Your task to perform on an android device: turn off picture-in-picture Image 0: 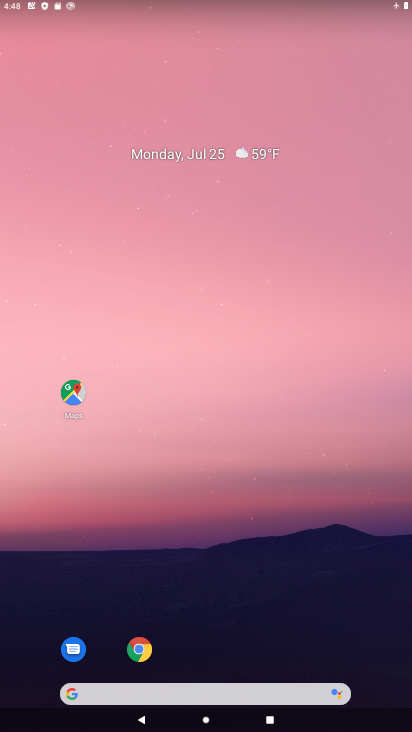
Step 0: drag from (277, 465) to (340, 0)
Your task to perform on an android device: turn off picture-in-picture Image 1: 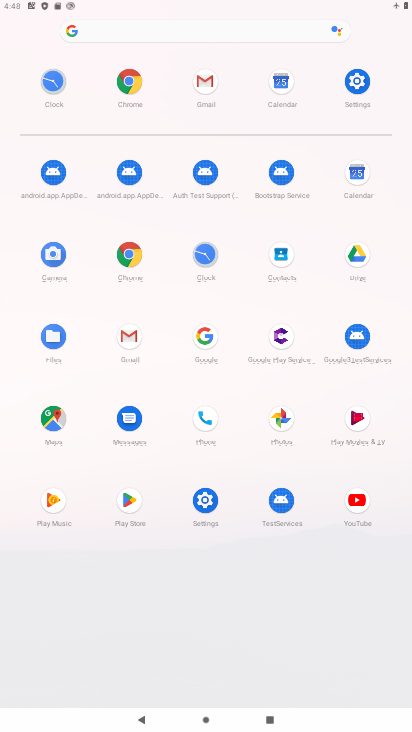
Step 1: click (133, 87)
Your task to perform on an android device: turn off picture-in-picture Image 2: 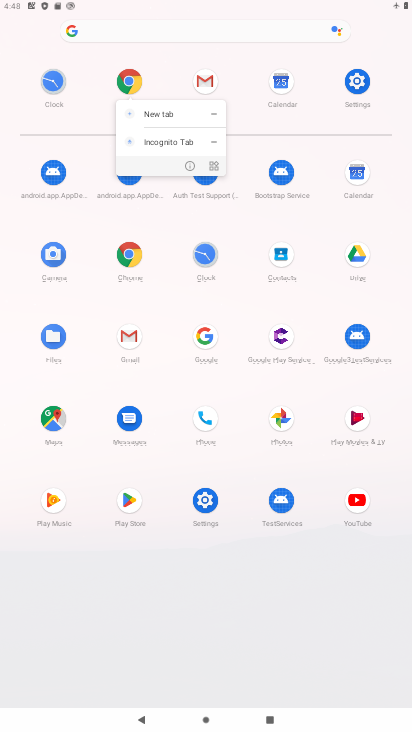
Step 2: click (191, 170)
Your task to perform on an android device: turn off picture-in-picture Image 3: 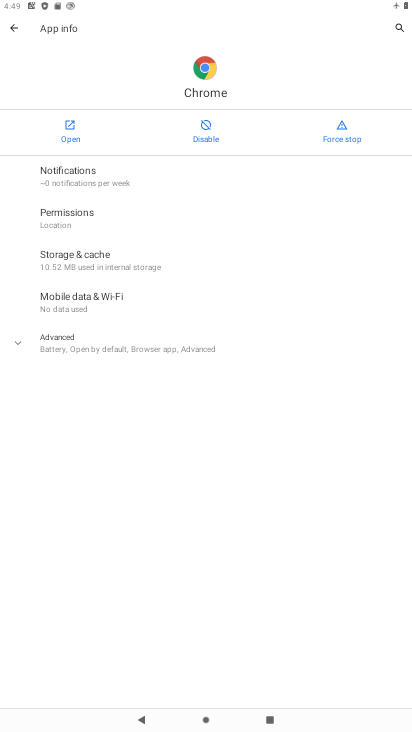
Step 3: click (60, 335)
Your task to perform on an android device: turn off picture-in-picture Image 4: 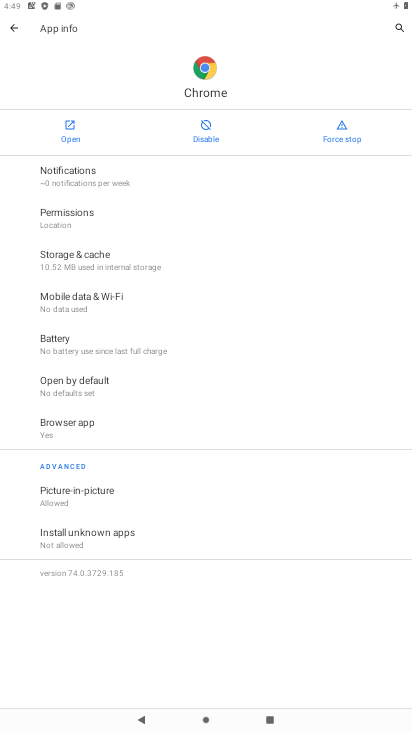
Step 4: click (72, 496)
Your task to perform on an android device: turn off picture-in-picture Image 5: 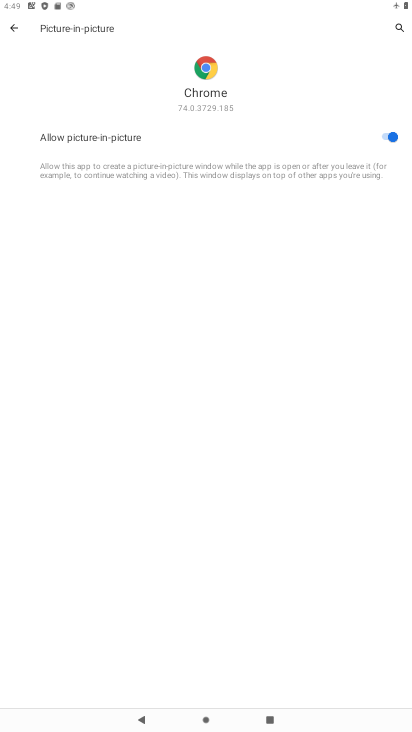
Step 5: click (390, 136)
Your task to perform on an android device: turn off picture-in-picture Image 6: 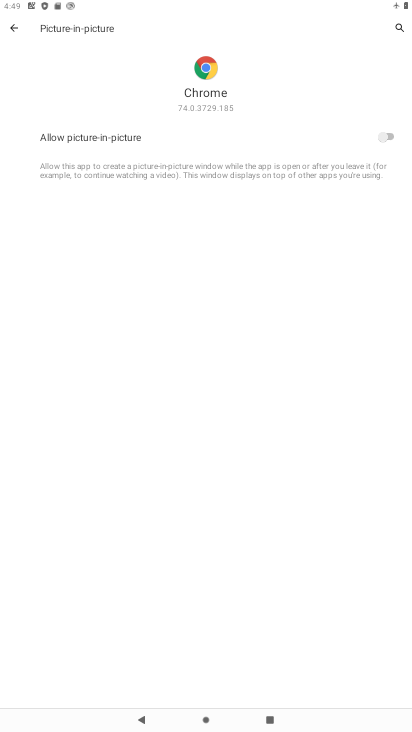
Step 6: task complete